Your task to perform on an android device: Go to privacy settings Image 0: 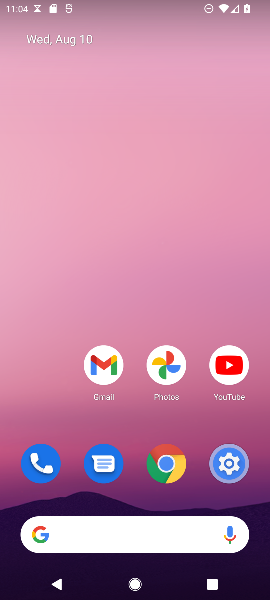
Step 0: click (221, 469)
Your task to perform on an android device: Go to privacy settings Image 1: 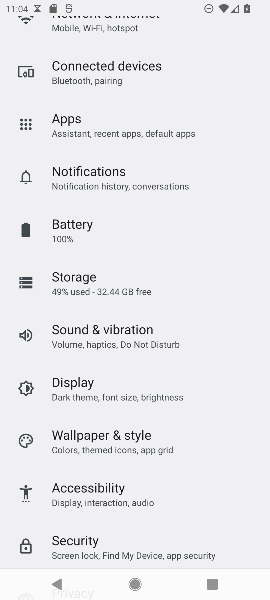
Step 1: drag from (189, 80) to (207, 396)
Your task to perform on an android device: Go to privacy settings Image 2: 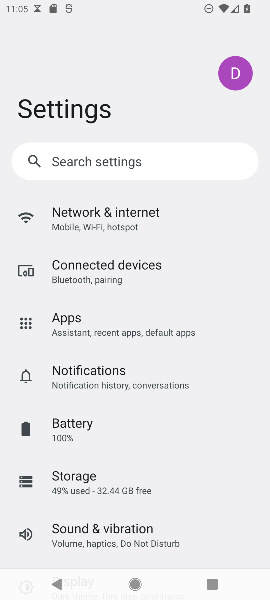
Step 2: drag from (209, 462) to (176, 190)
Your task to perform on an android device: Go to privacy settings Image 3: 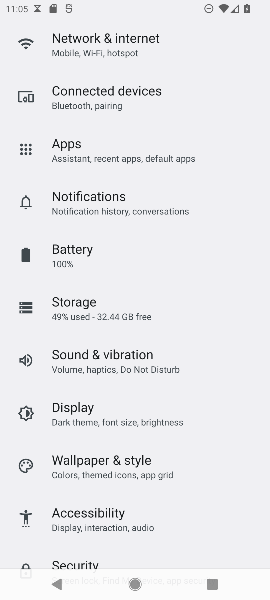
Step 3: drag from (206, 546) to (268, 304)
Your task to perform on an android device: Go to privacy settings Image 4: 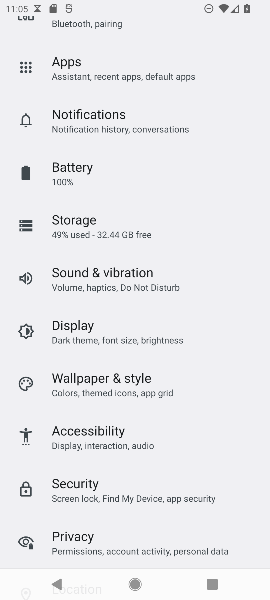
Step 4: click (104, 549)
Your task to perform on an android device: Go to privacy settings Image 5: 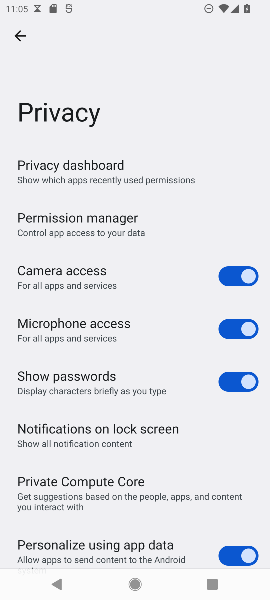
Step 5: task complete